Your task to perform on an android device: Go to Yahoo.com Image 0: 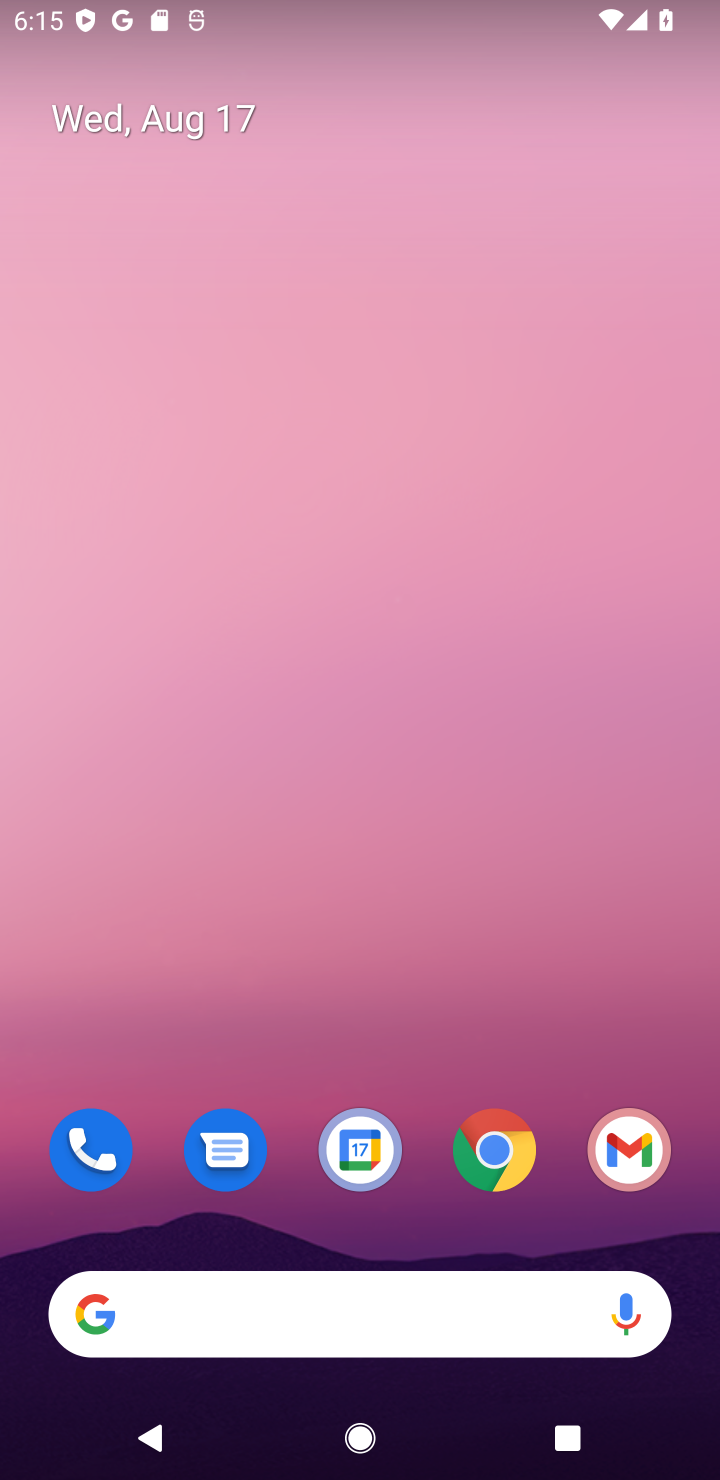
Step 0: click (471, 1164)
Your task to perform on an android device: Go to Yahoo.com Image 1: 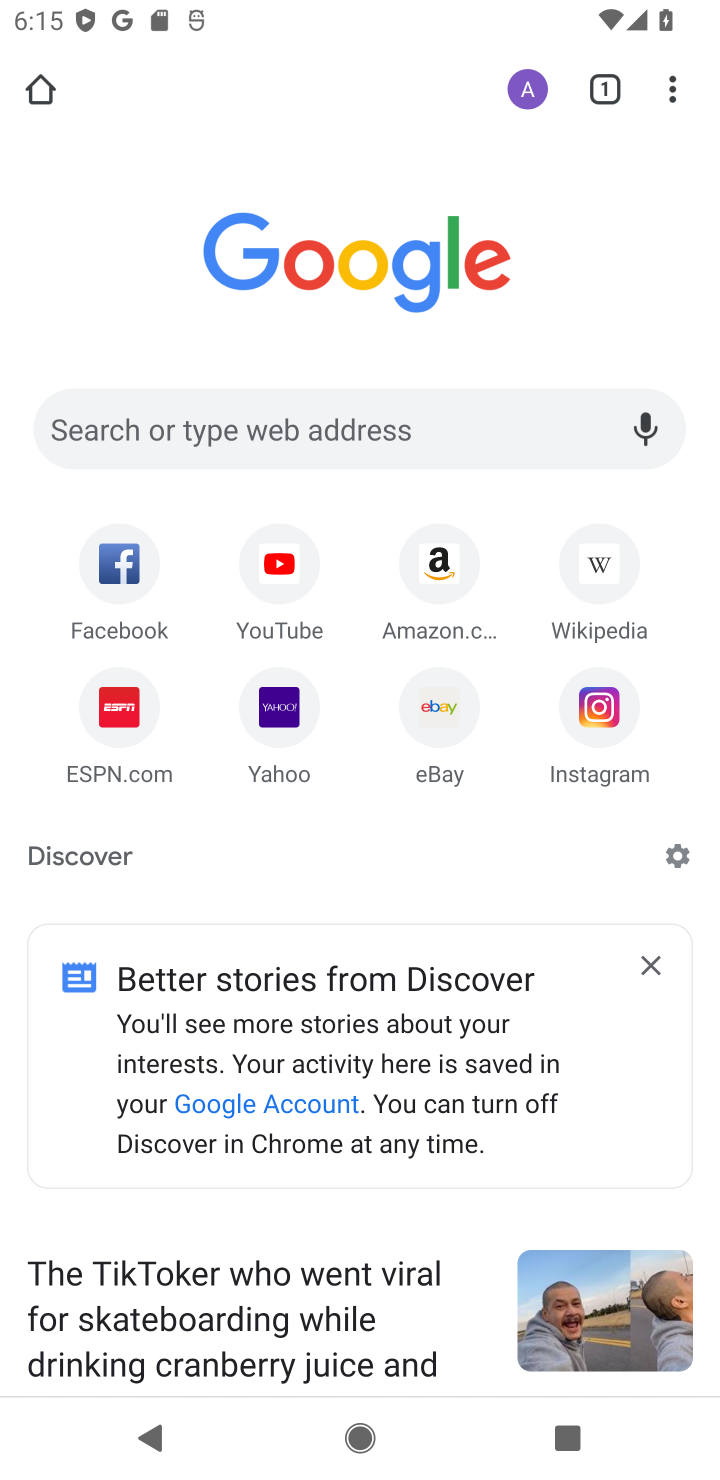
Step 1: click (268, 706)
Your task to perform on an android device: Go to Yahoo.com Image 2: 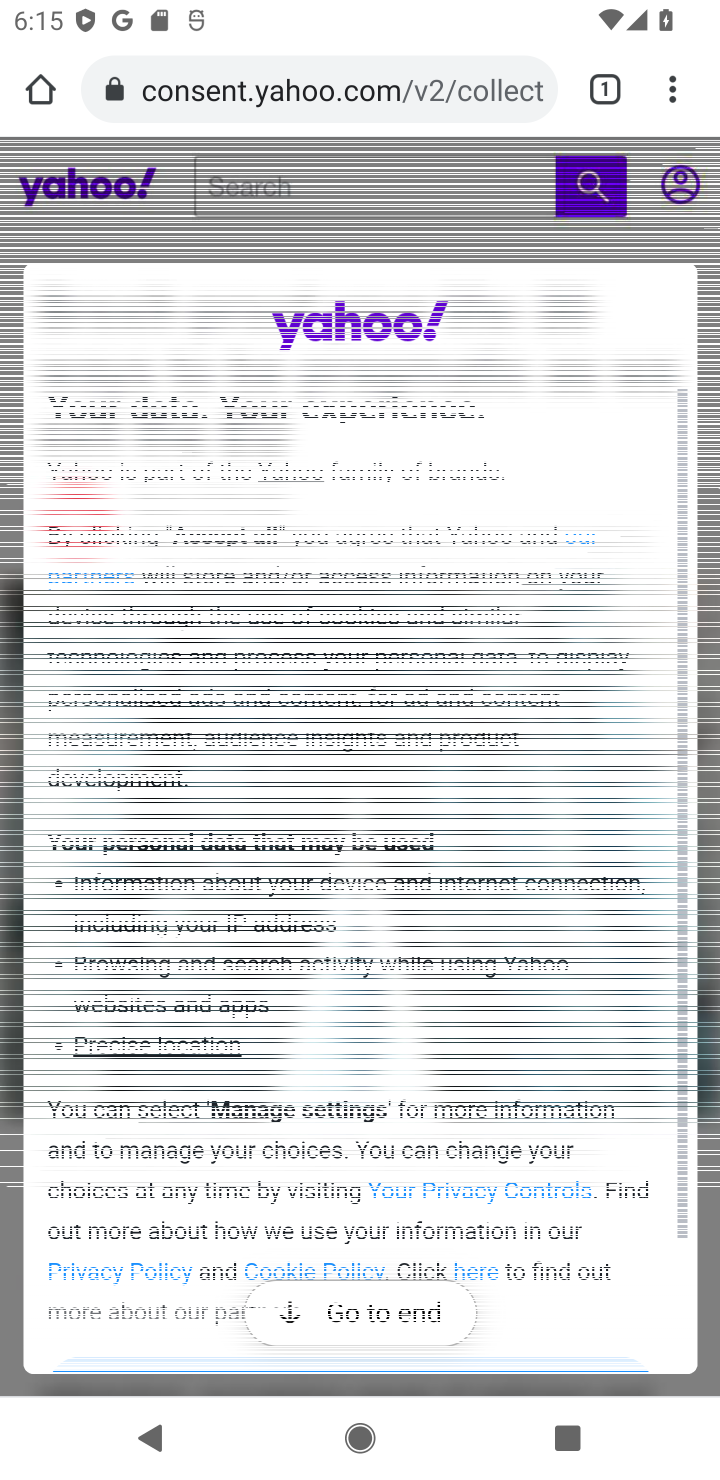
Step 2: task complete